Your task to perform on an android device: add a contact in the contacts app Image 0: 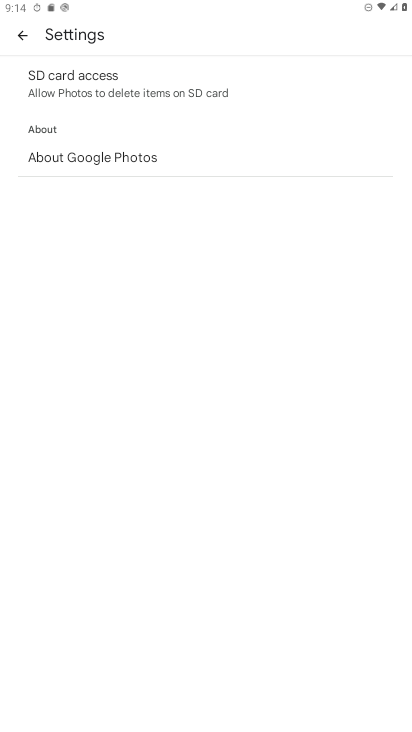
Step 0: press home button
Your task to perform on an android device: add a contact in the contacts app Image 1: 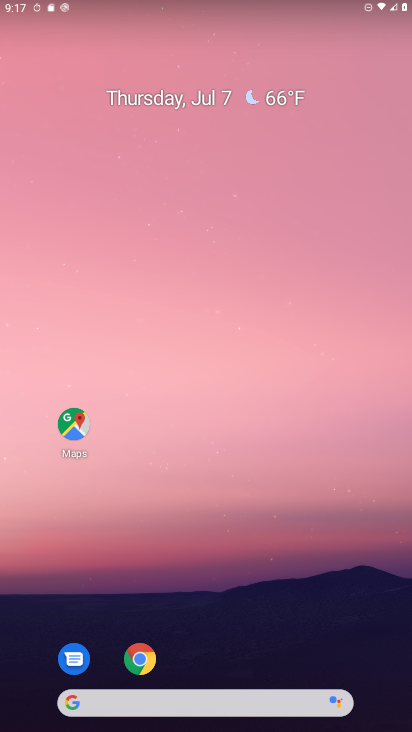
Step 1: drag from (375, 667) to (173, 46)
Your task to perform on an android device: add a contact in the contacts app Image 2: 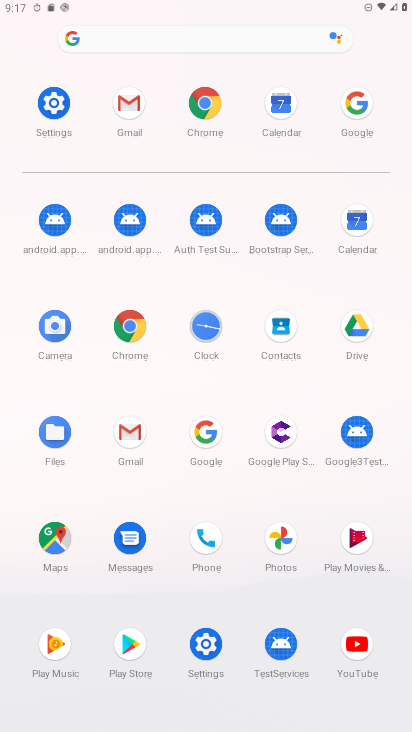
Step 2: click (282, 335)
Your task to perform on an android device: add a contact in the contacts app Image 3: 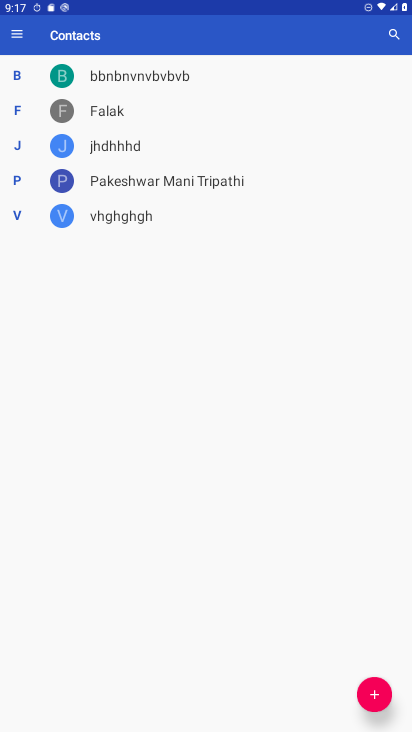
Step 3: click (358, 698)
Your task to perform on an android device: add a contact in the contacts app Image 4: 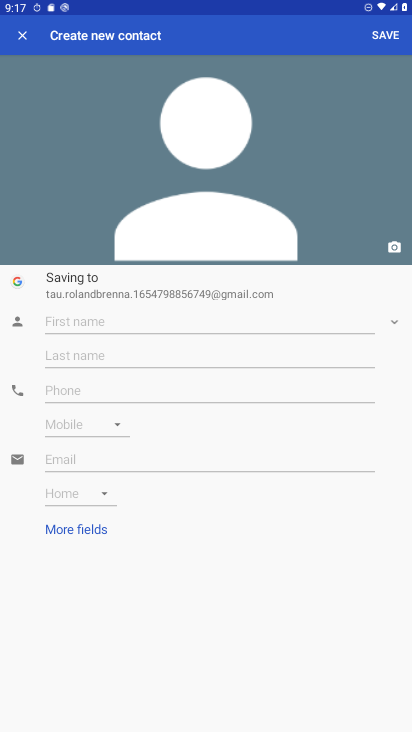
Step 4: click (89, 331)
Your task to perform on an android device: add a contact in the contacts app Image 5: 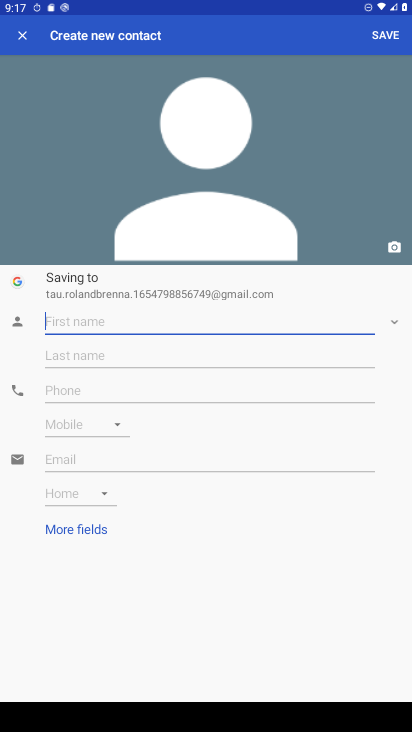
Step 5: type "yo yo"
Your task to perform on an android device: add a contact in the contacts app Image 6: 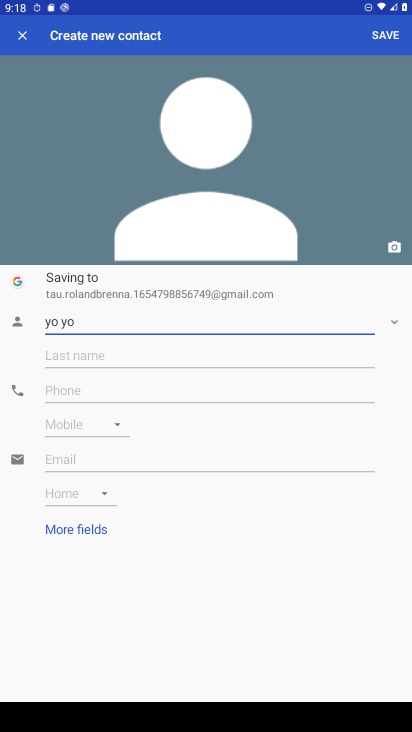
Step 6: click (395, 30)
Your task to perform on an android device: add a contact in the contacts app Image 7: 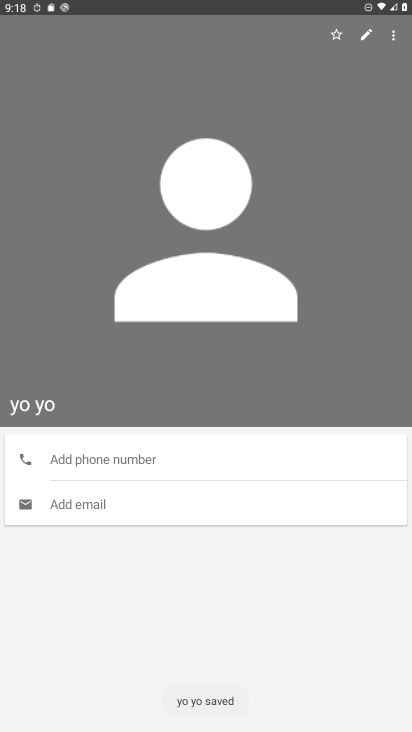
Step 7: task complete